Your task to perform on an android device: Check the weather Image 0: 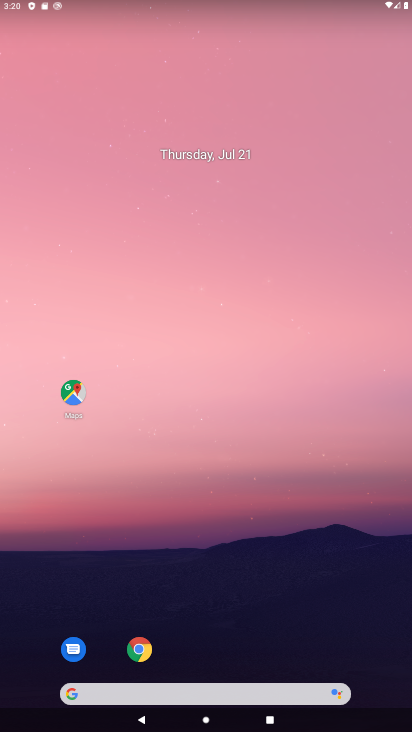
Step 0: drag from (163, 458) to (184, 66)
Your task to perform on an android device: Check the weather Image 1: 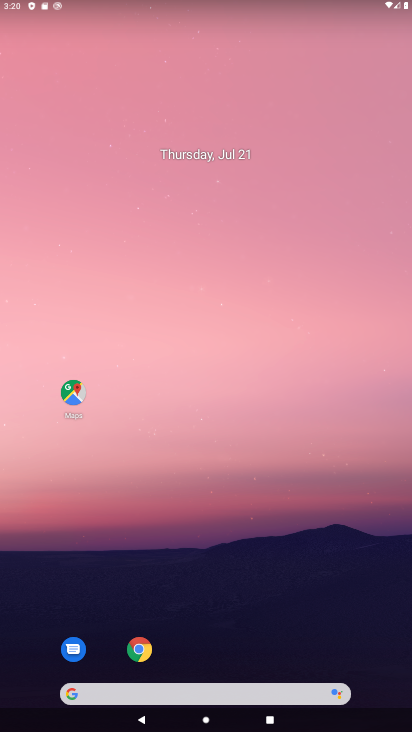
Step 1: drag from (198, 375) to (198, 98)
Your task to perform on an android device: Check the weather Image 2: 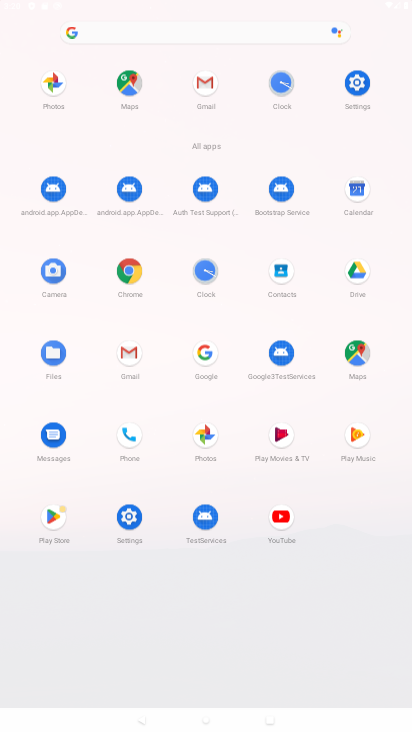
Step 2: click (291, 130)
Your task to perform on an android device: Check the weather Image 3: 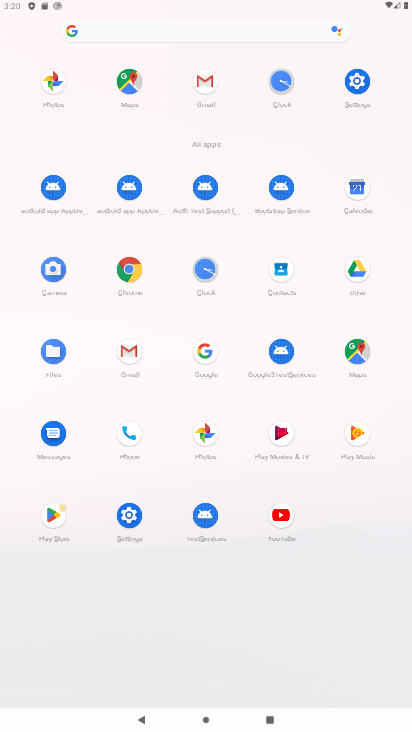
Step 3: drag from (247, 382) to (255, 24)
Your task to perform on an android device: Check the weather Image 4: 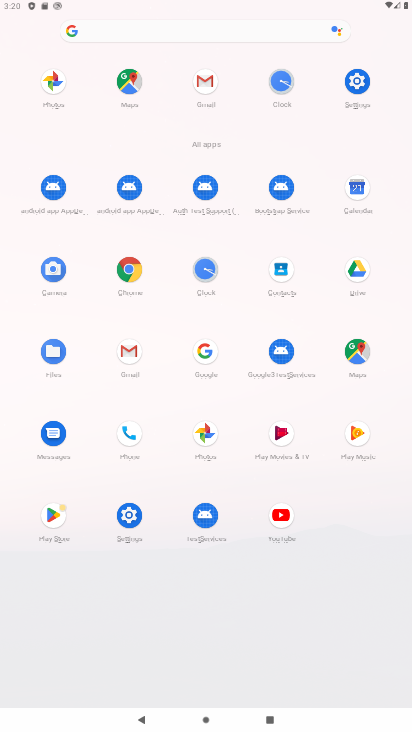
Step 4: click (130, 271)
Your task to perform on an android device: Check the weather Image 5: 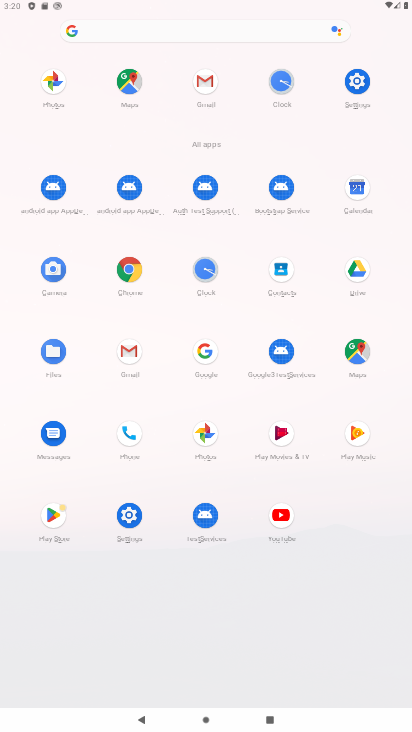
Step 5: click (132, 272)
Your task to perform on an android device: Check the weather Image 6: 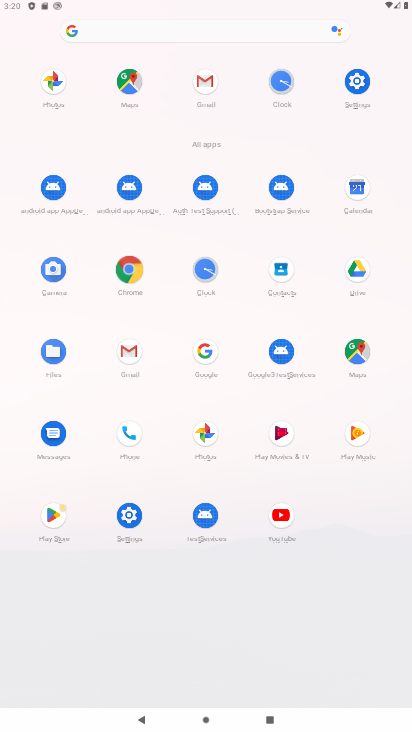
Step 6: click (142, 264)
Your task to perform on an android device: Check the weather Image 7: 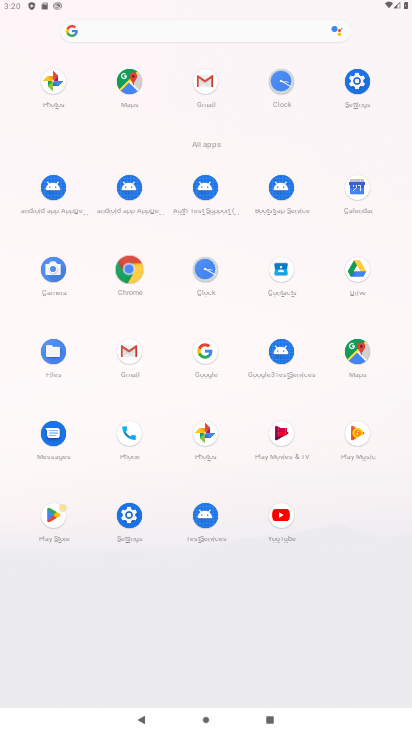
Step 7: click (142, 263)
Your task to perform on an android device: Check the weather Image 8: 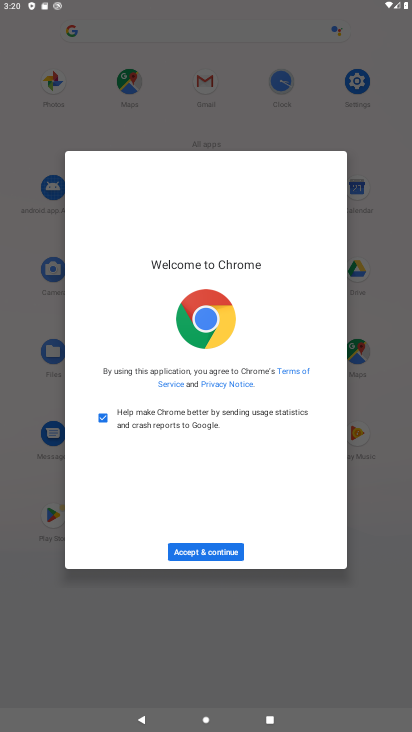
Step 8: click (204, 553)
Your task to perform on an android device: Check the weather Image 9: 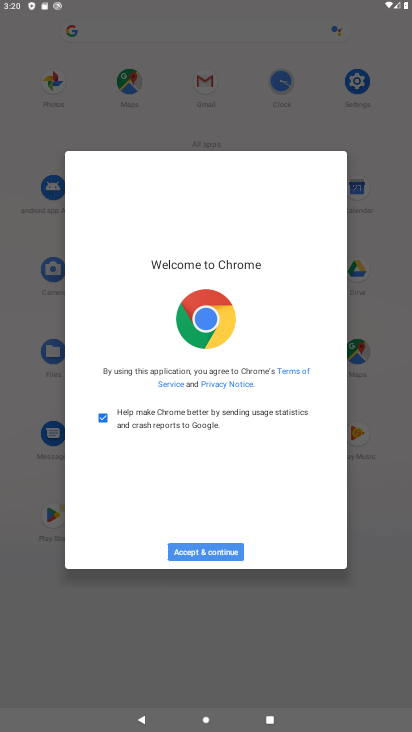
Step 9: click (204, 553)
Your task to perform on an android device: Check the weather Image 10: 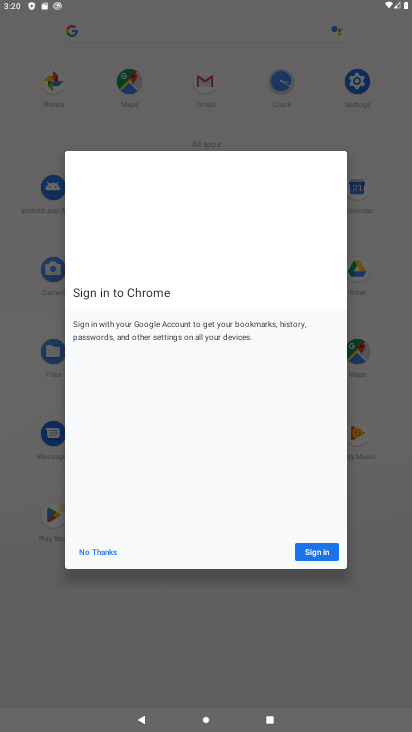
Step 10: click (208, 550)
Your task to perform on an android device: Check the weather Image 11: 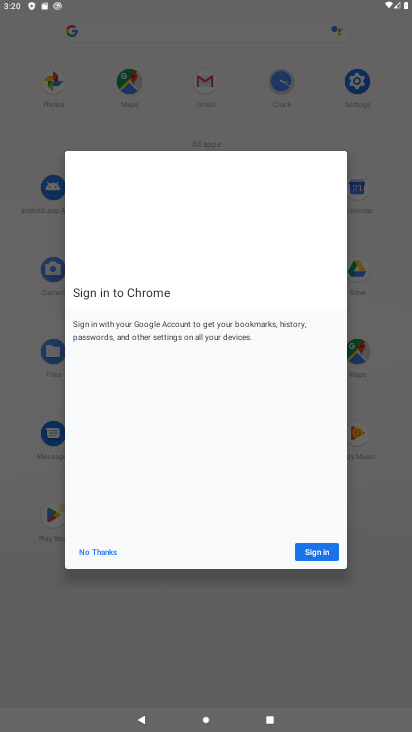
Step 11: click (209, 549)
Your task to perform on an android device: Check the weather Image 12: 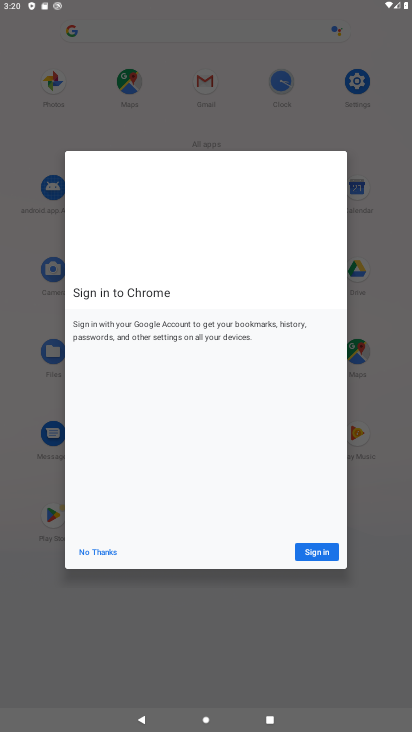
Step 12: click (209, 549)
Your task to perform on an android device: Check the weather Image 13: 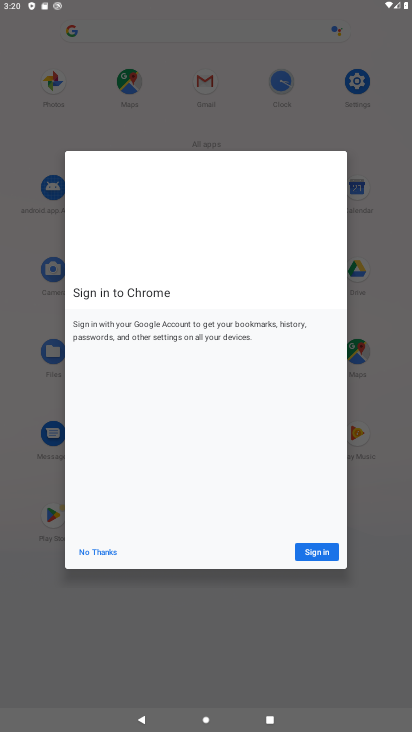
Step 13: click (84, 549)
Your task to perform on an android device: Check the weather Image 14: 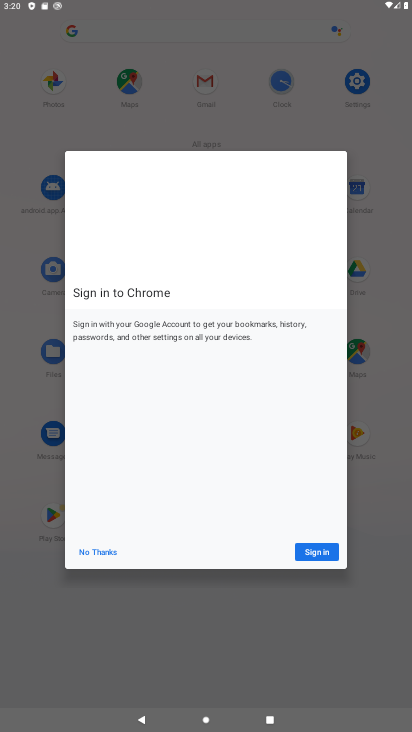
Step 14: click (90, 543)
Your task to perform on an android device: Check the weather Image 15: 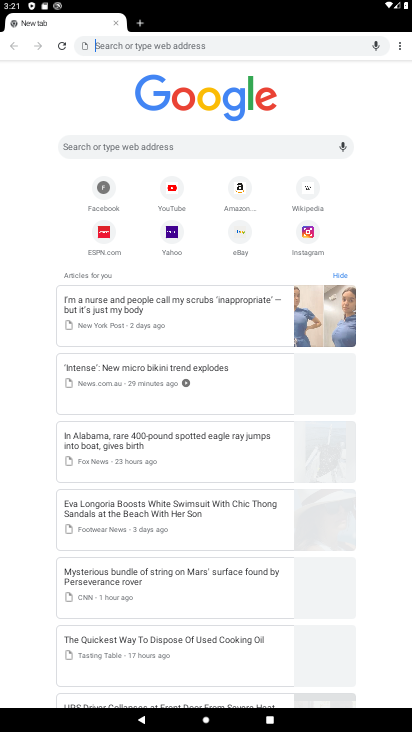
Step 15: click (144, 148)
Your task to perform on an android device: Check the weather Image 16: 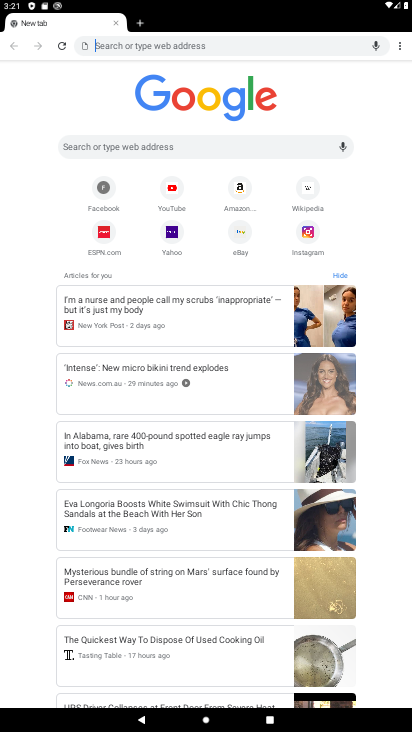
Step 16: click (143, 146)
Your task to perform on an android device: Check the weather Image 17: 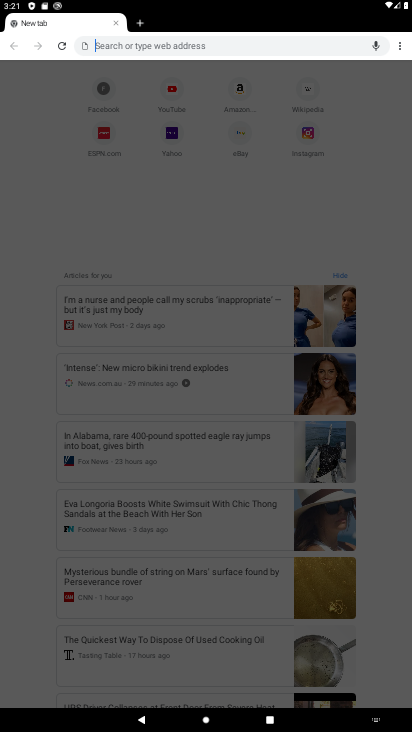
Step 17: type "weather?"
Your task to perform on an android device: Check the weather Image 18: 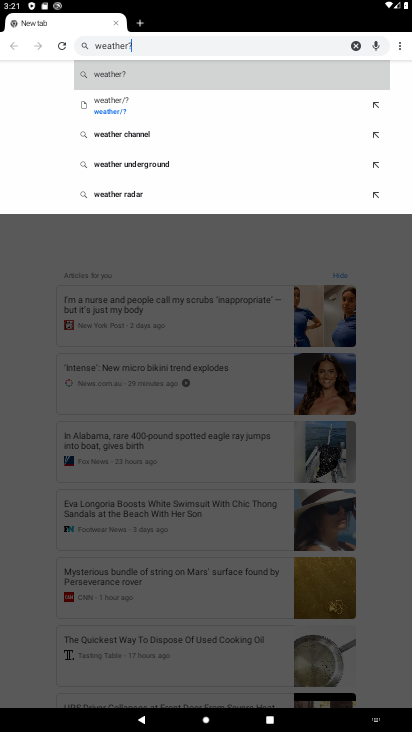
Step 18: click (102, 102)
Your task to perform on an android device: Check the weather Image 19: 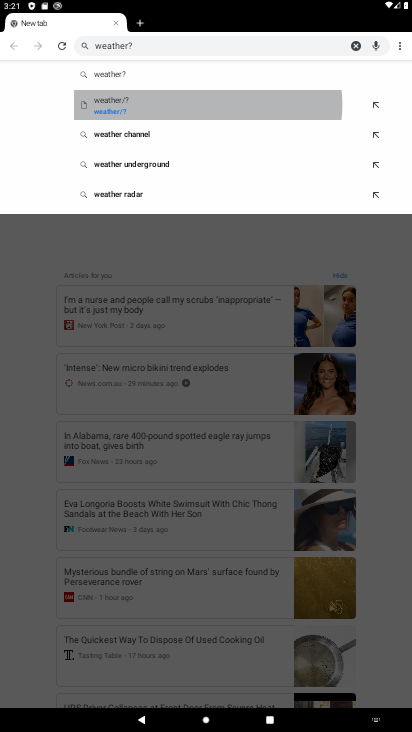
Step 19: click (102, 93)
Your task to perform on an android device: Check the weather Image 20: 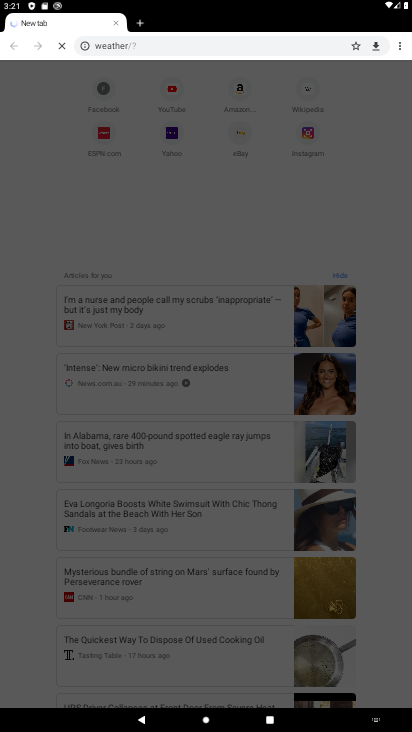
Step 20: click (104, 94)
Your task to perform on an android device: Check the weather Image 21: 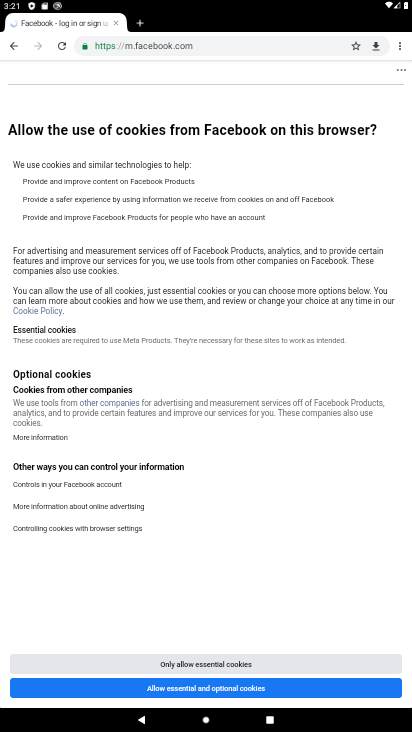
Step 21: task complete